Your task to perform on an android device: toggle improve location accuracy Image 0: 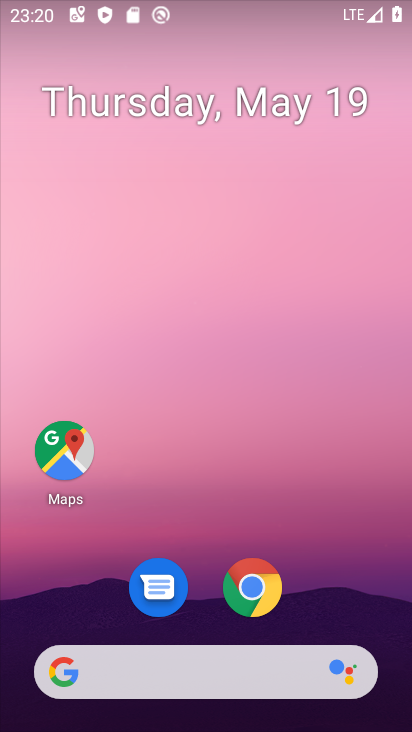
Step 0: drag from (206, 680) to (230, 223)
Your task to perform on an android device: toggle improve location accuracy Image 1: 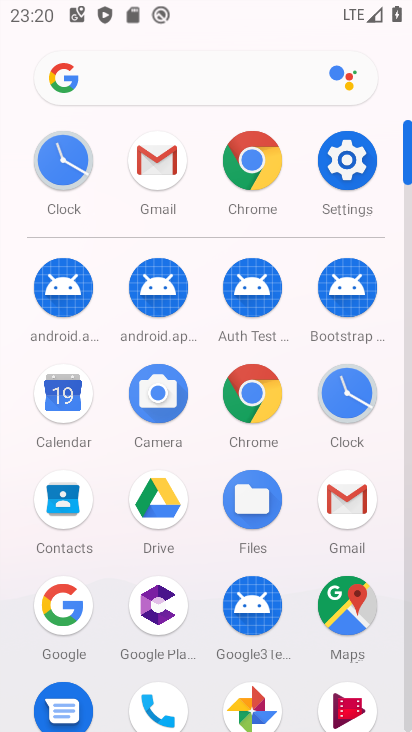
Step 1: click (346, 183)
Your task to perform on an android device: toggle improve location accuracy Image 2: 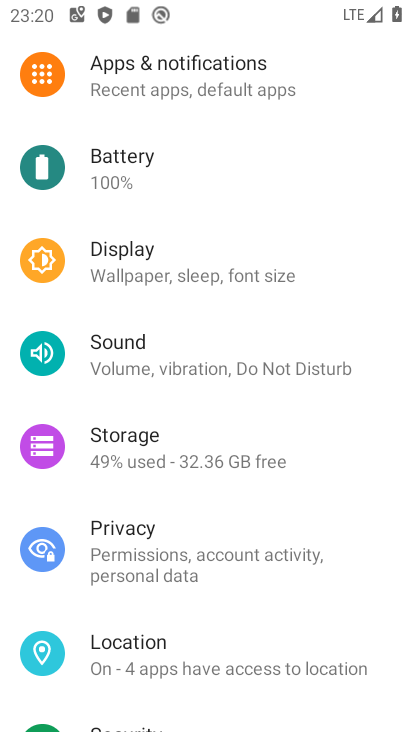
Step 2: drag from (185, 100) to (247, 398)
Your task to perform on an android device: toggle improve location accuracy Image 3: 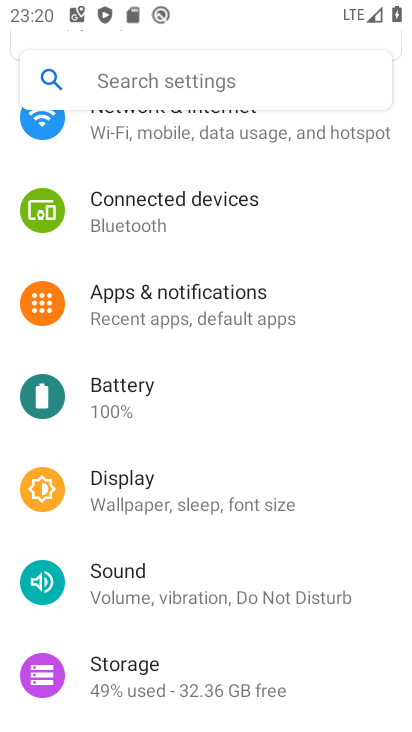
Step 3: click (184, 99)
Your task to perform on an android device: toggle improve location accuracy Image 4: 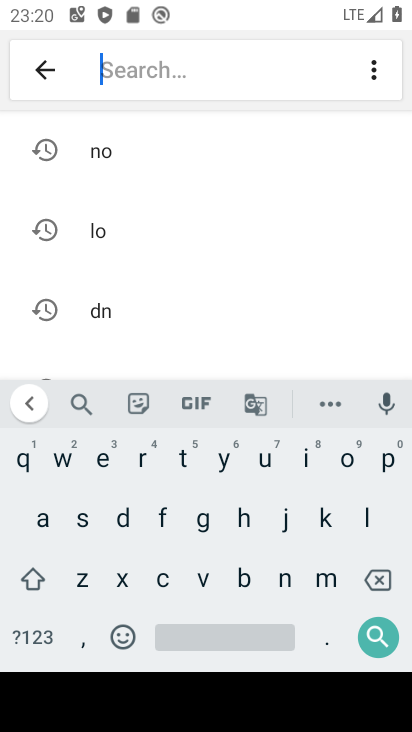
Step 4: click (364, 526)
Your task to perform on an android device: toggle improve location accuracy Image 5: 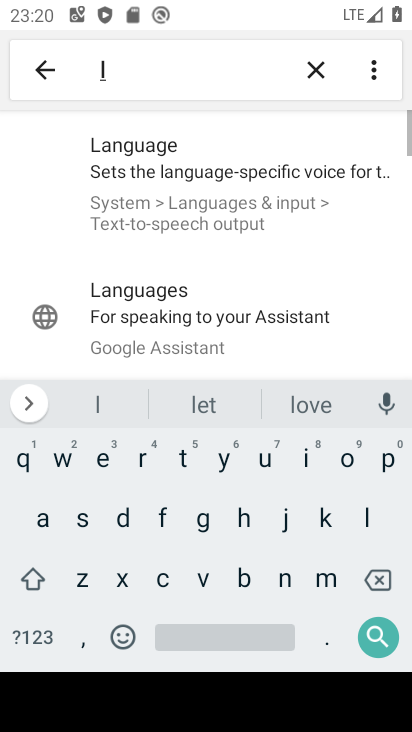
Step 5: click (342, 462)
Your task to perform on an android device: toggle improve location accuracy Image 6: 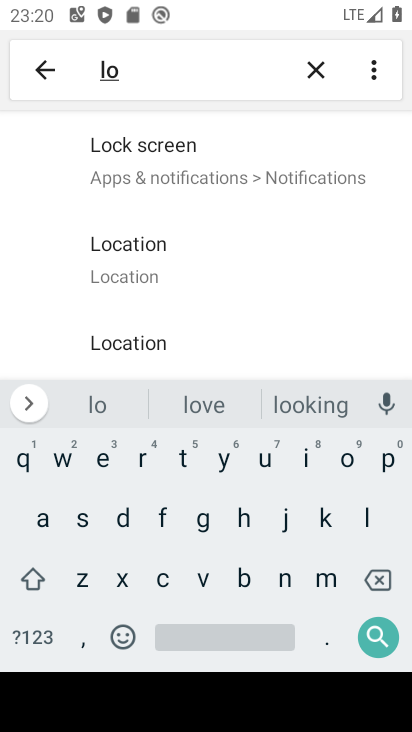
Step 6: click (151, 267)
Your task to perform on an android device: toggle improve location accuracy Image 7: 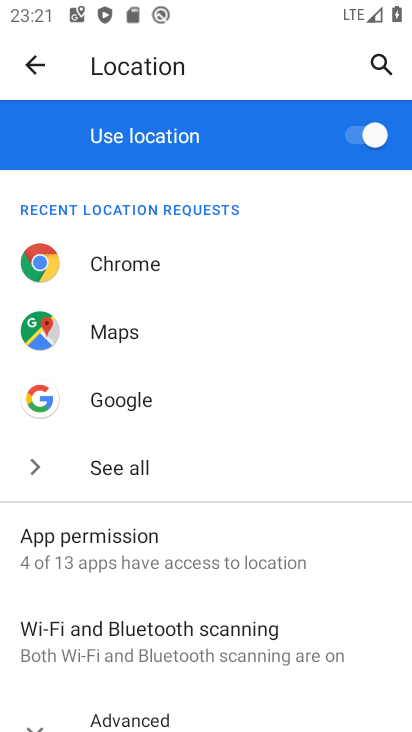
Step 7: drag from (135, 630) to (124, 291)
Your task to perform on an android device: toggle improve location accuracy Image 8: 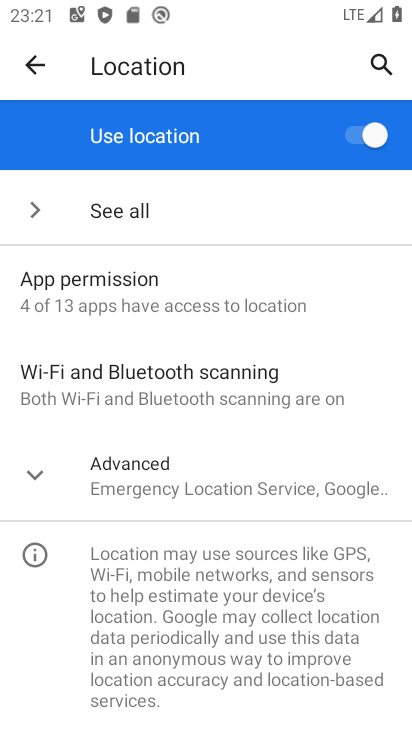
Step 8: click (53, 493)
Your task to perform on an android device: toggle improve location accuracy Image 9: 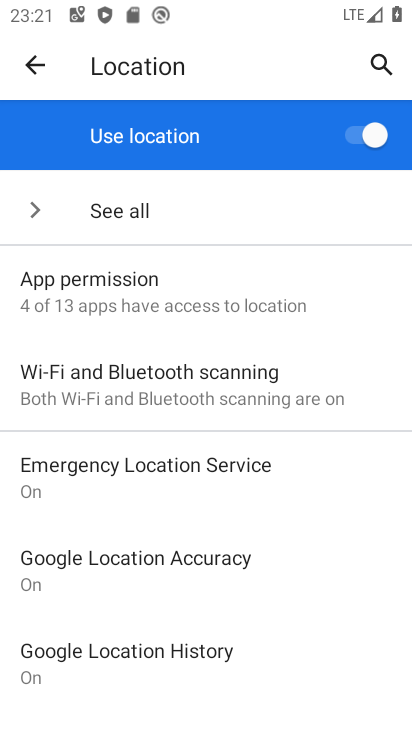
Step 9: click (180, 570)
Your task to perform on an android device: toggle improve location accuracy Image 10: 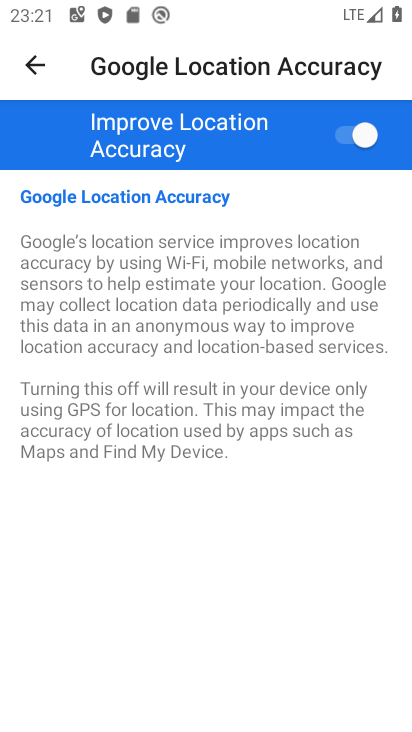
Step 10: task complete